Your task to perform on an android device: What's a good restaurant in Boston? Image 0: 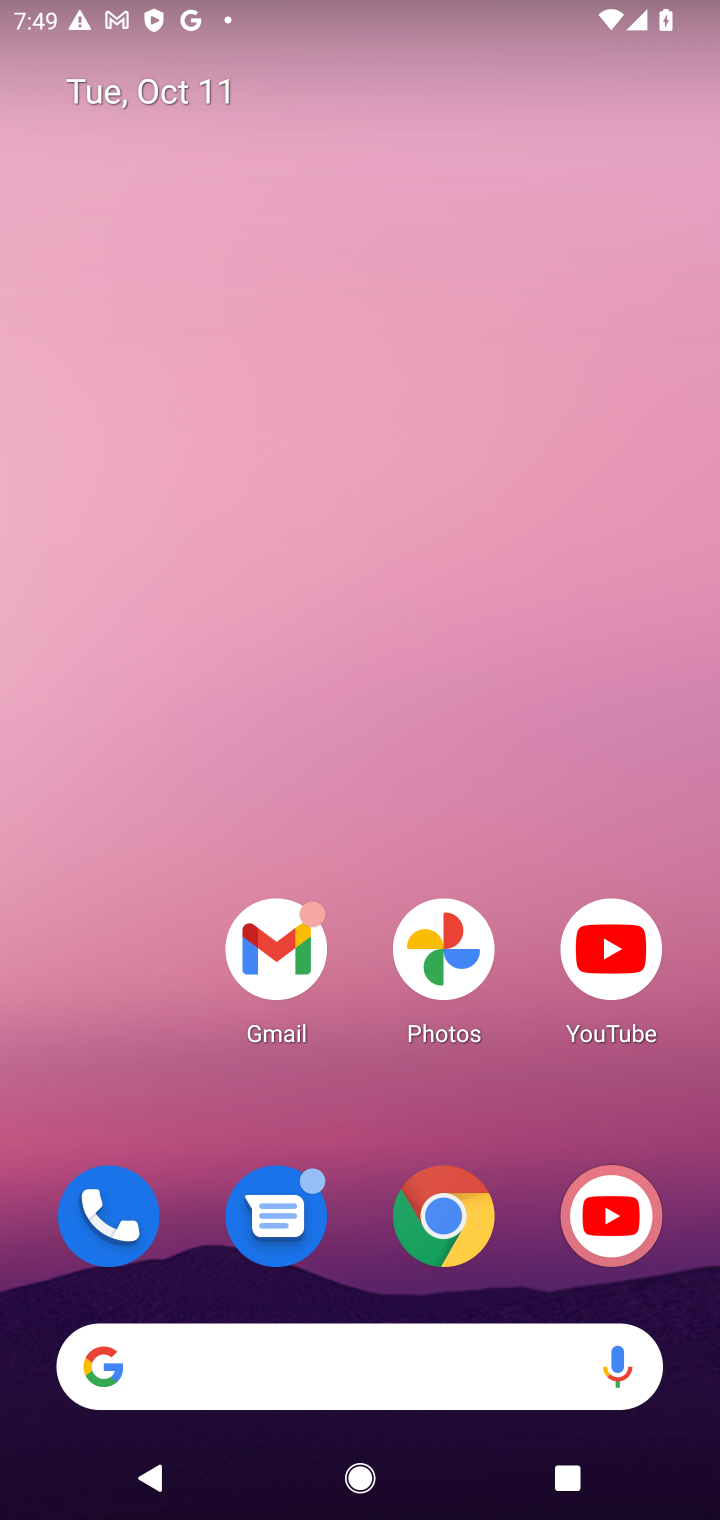
Step 0: click (462, 1232)
Your task to perform on an android device: What's a good restaurant in Boston? Image 1: 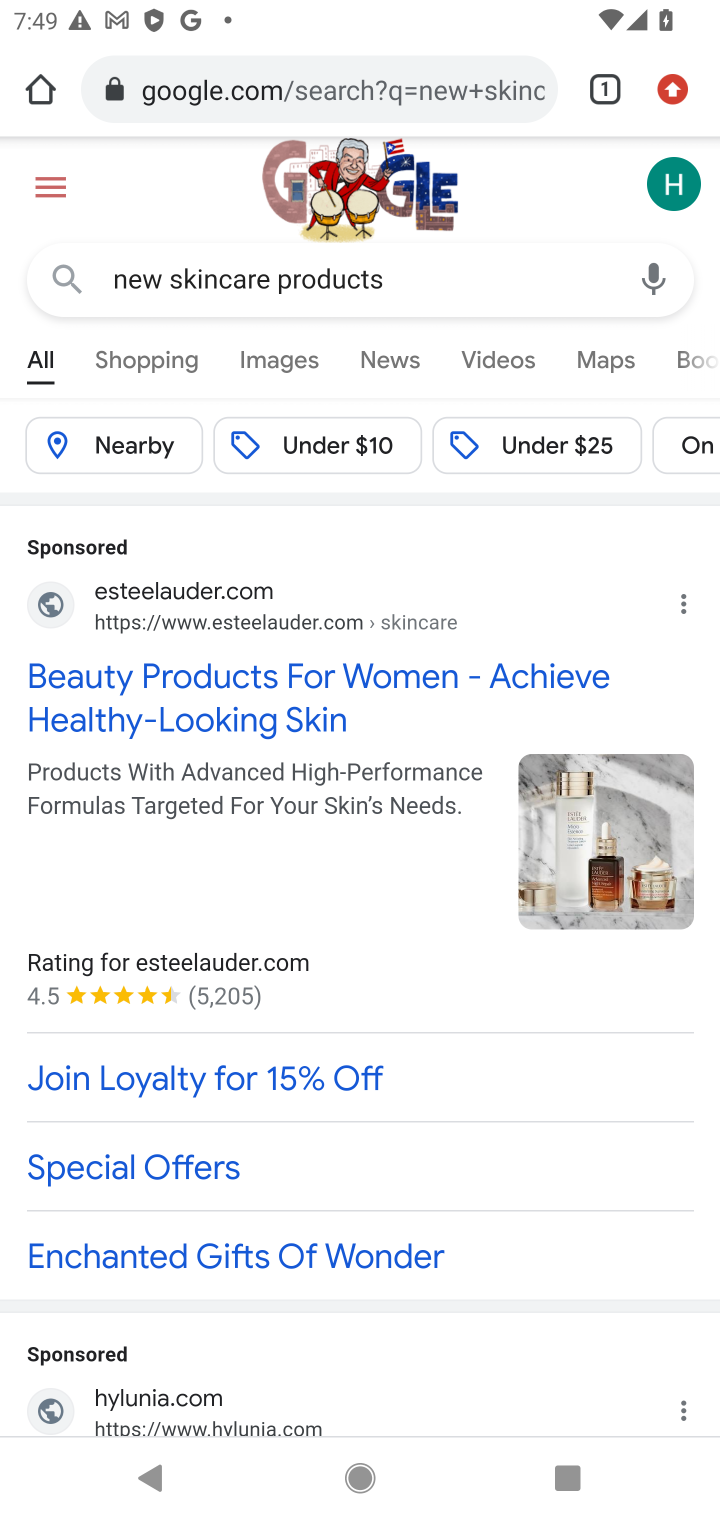
Step 1: click (409, 285)
Your task to perform on an android device: What's a good restaurant in Boston? Image 2: 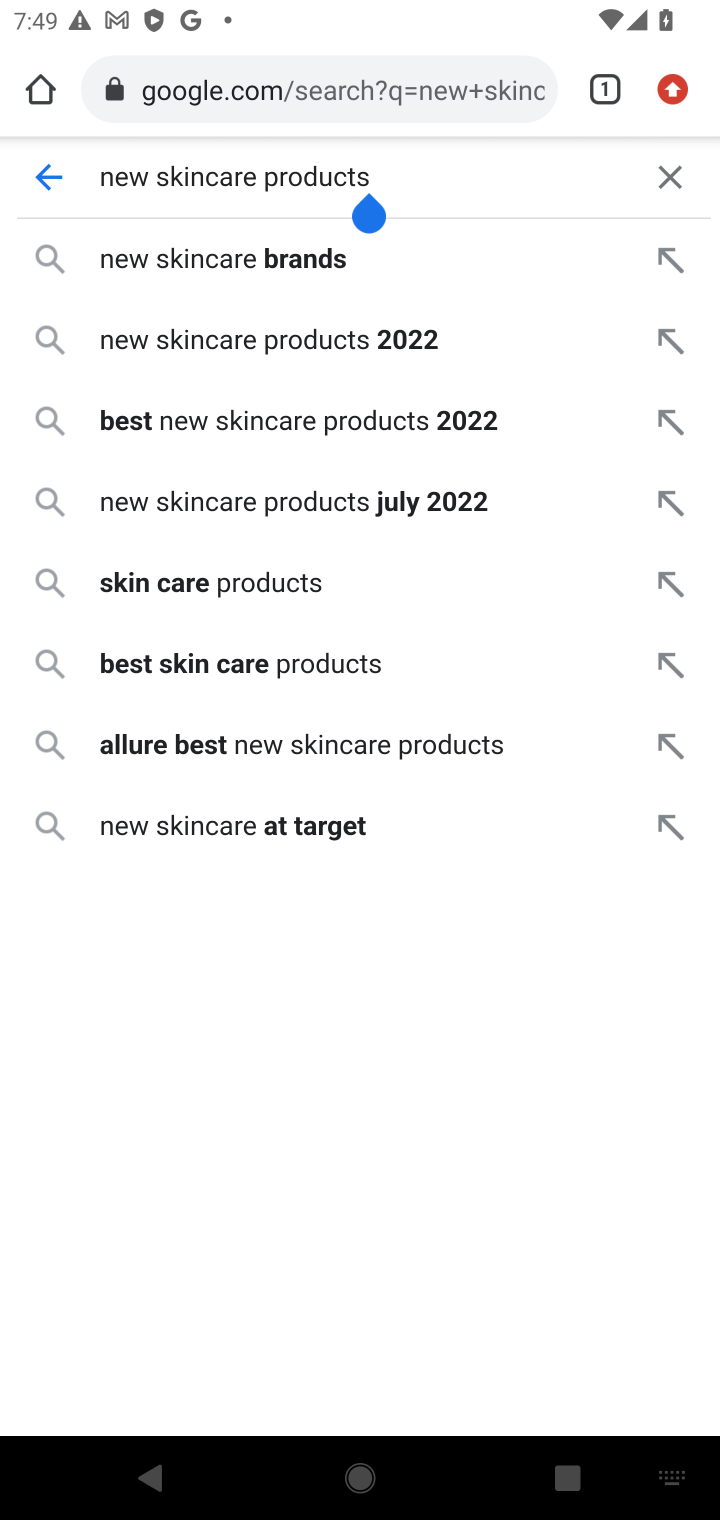
Step 2: click (662, 182)
Your task to perform on an android device: What's a good restaurant in Boston? Image 3: 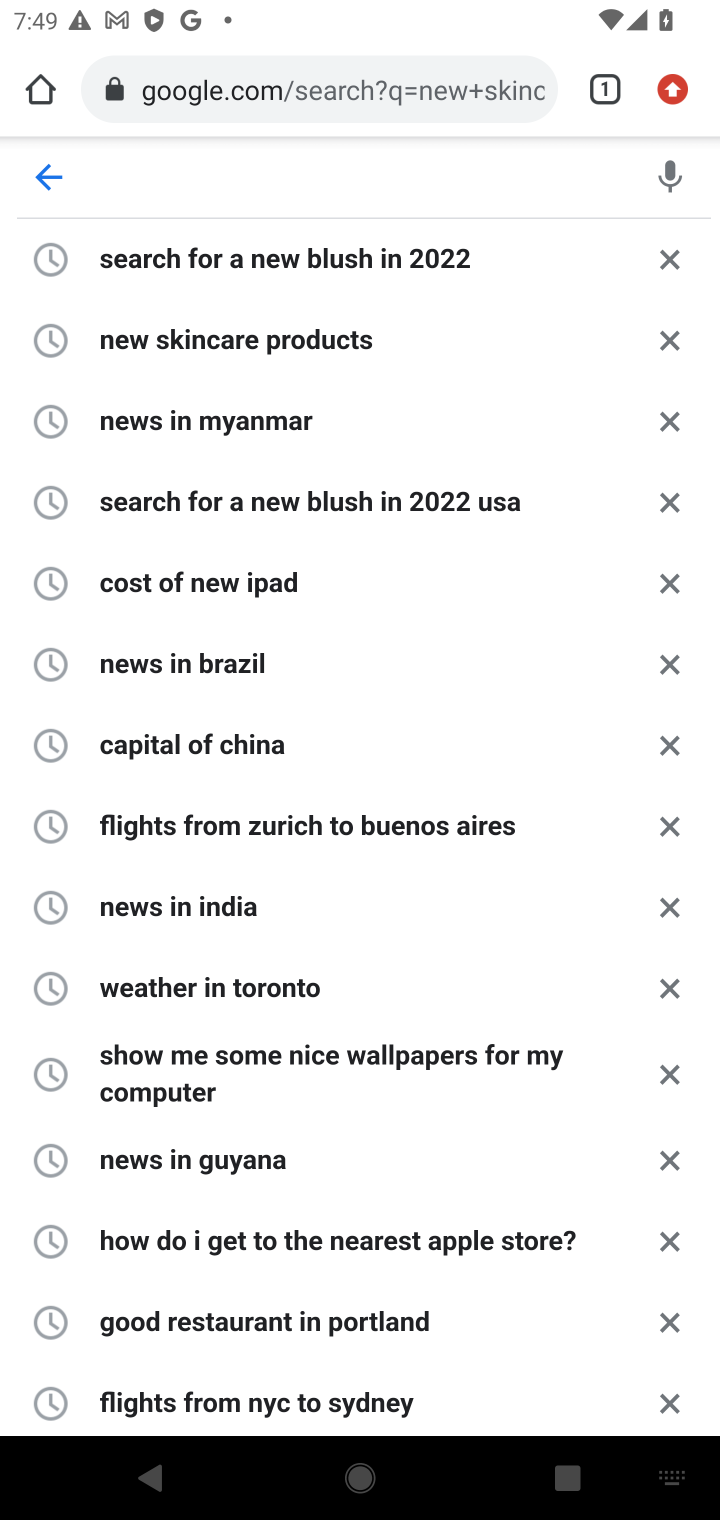
Step 3: type "What's a good restaurant in Boston?"
Your task to perform on an android device: What's a good restaurant in Boston? Image 4: 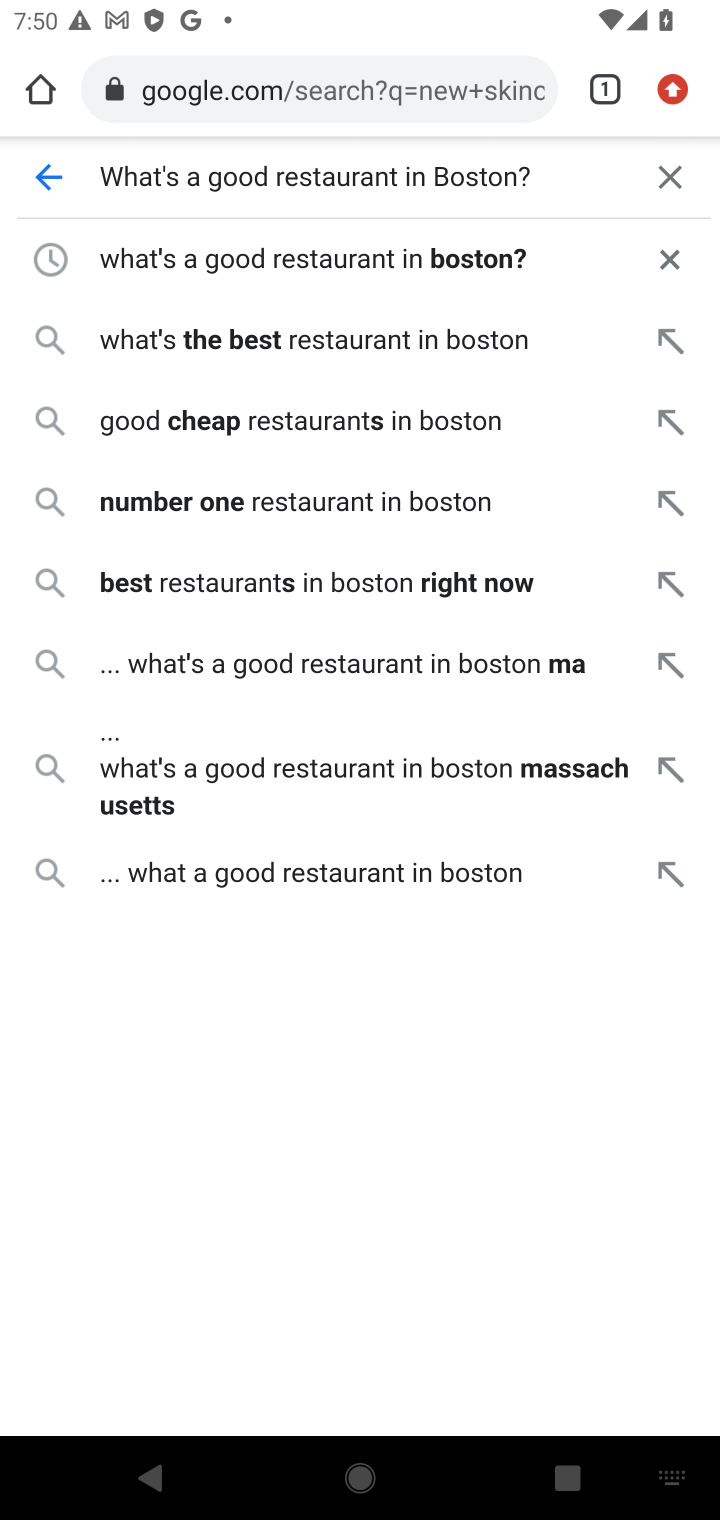
Step 4: press enter
Your task to perform on an android device: What's a good restaurant in Boston? Image 5: 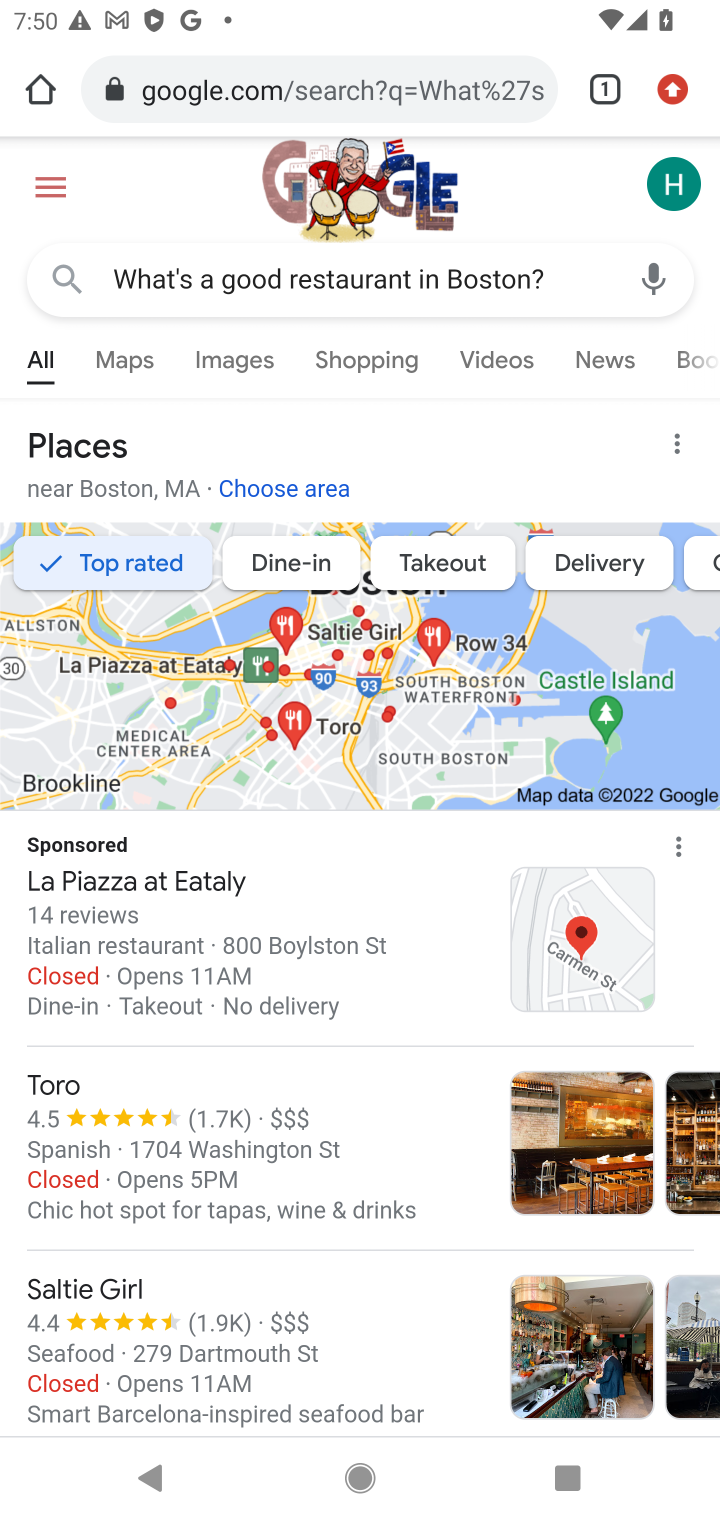
Step 5: task complete